Your task to perform on an android device: Open network settings Image 0: 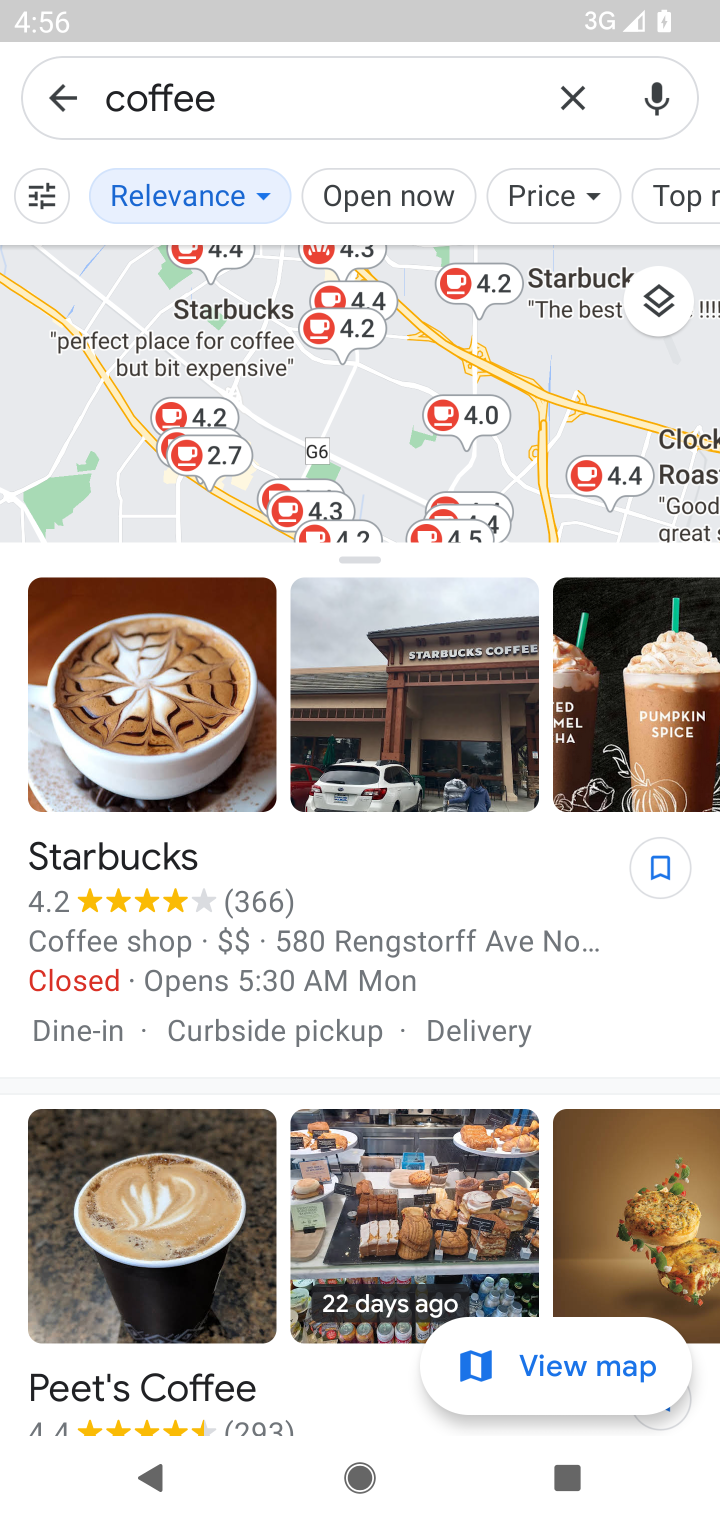
Step 0: press home button
Your task to perform on an android device: Open network settings Image 1: 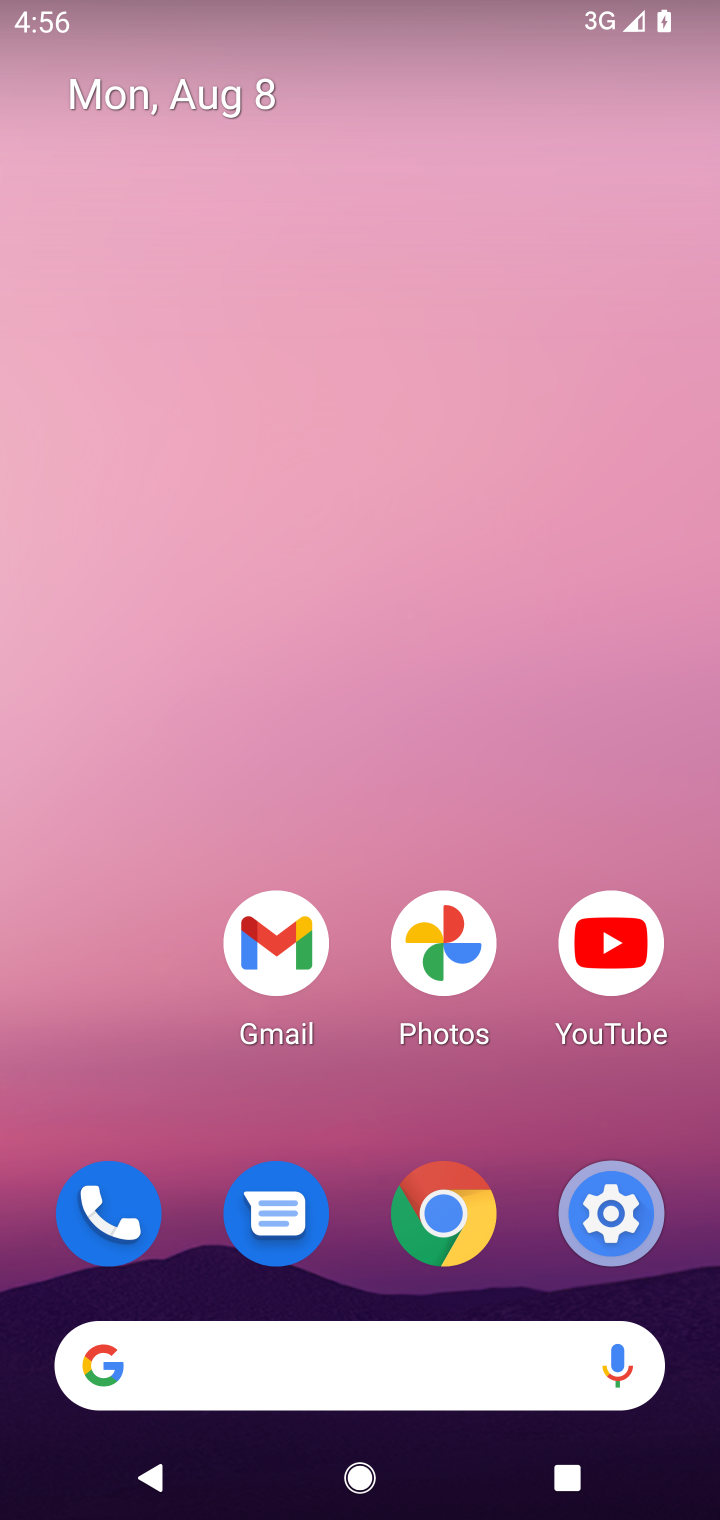
Step 1: click (639, 1197)
Your task to perform on an android device: Open network settings Image 2: 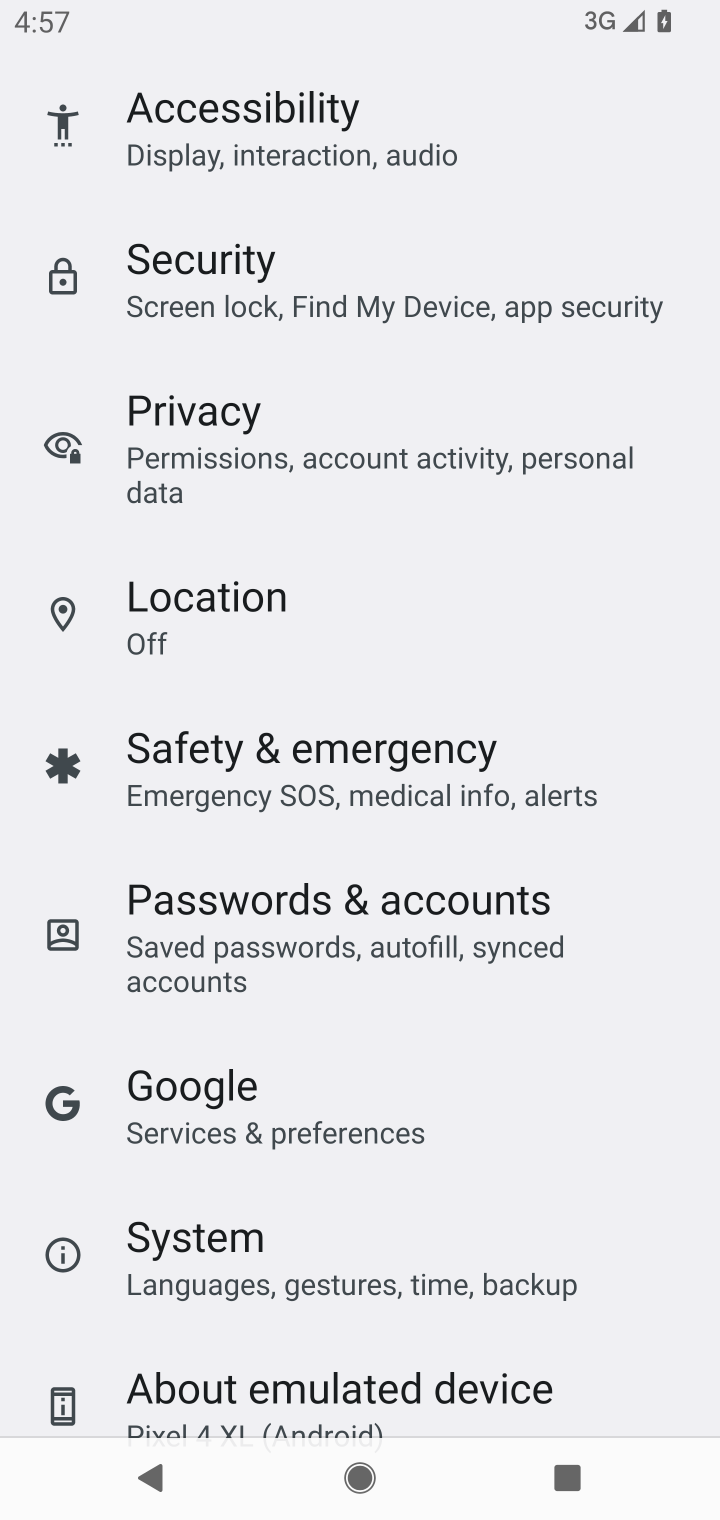
Step 2: drag from (296, 637) to (283, 1118)
Your task to perform on an android device: Open network settings Image 3: 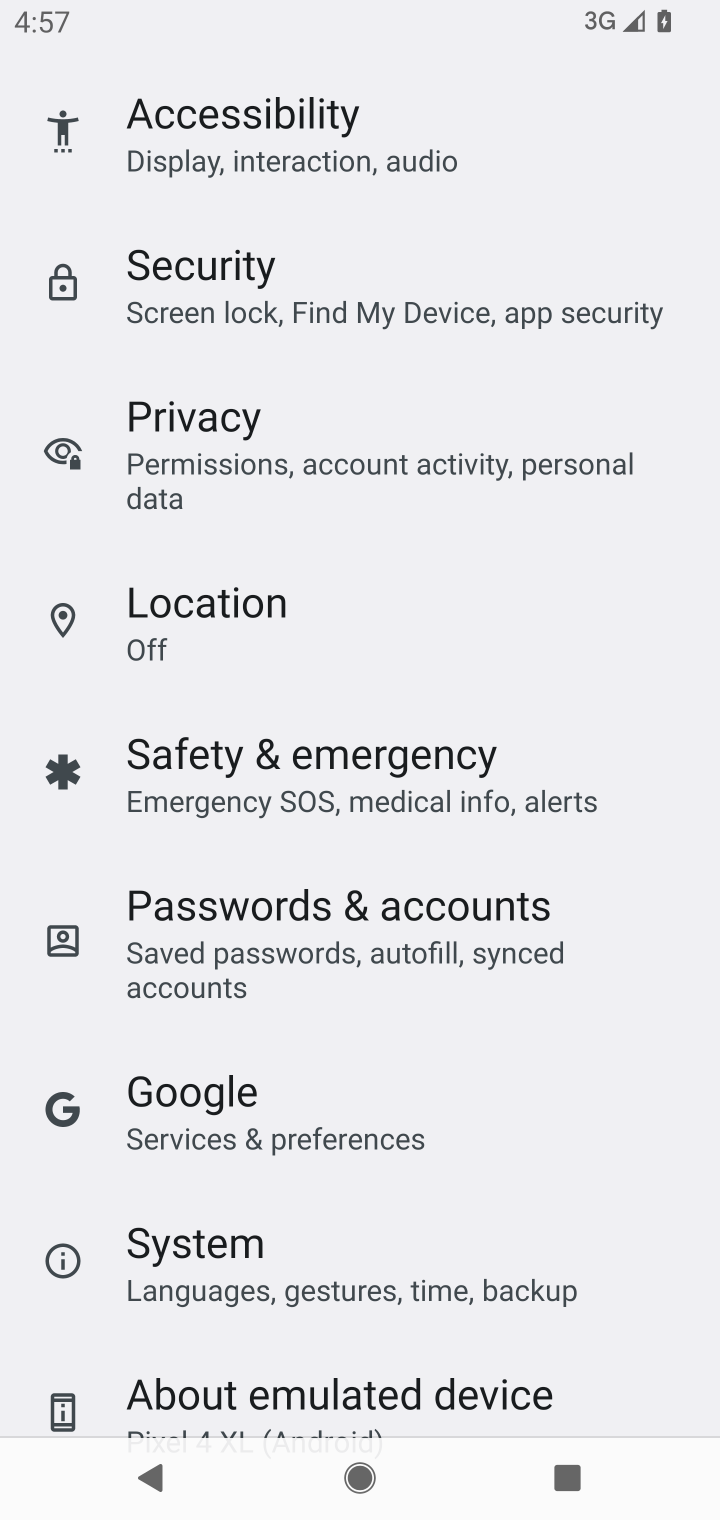
Step 3: drag from (505, 389) to (539, 1259)
Your task to perform on an android device: Open network settings Image 4: 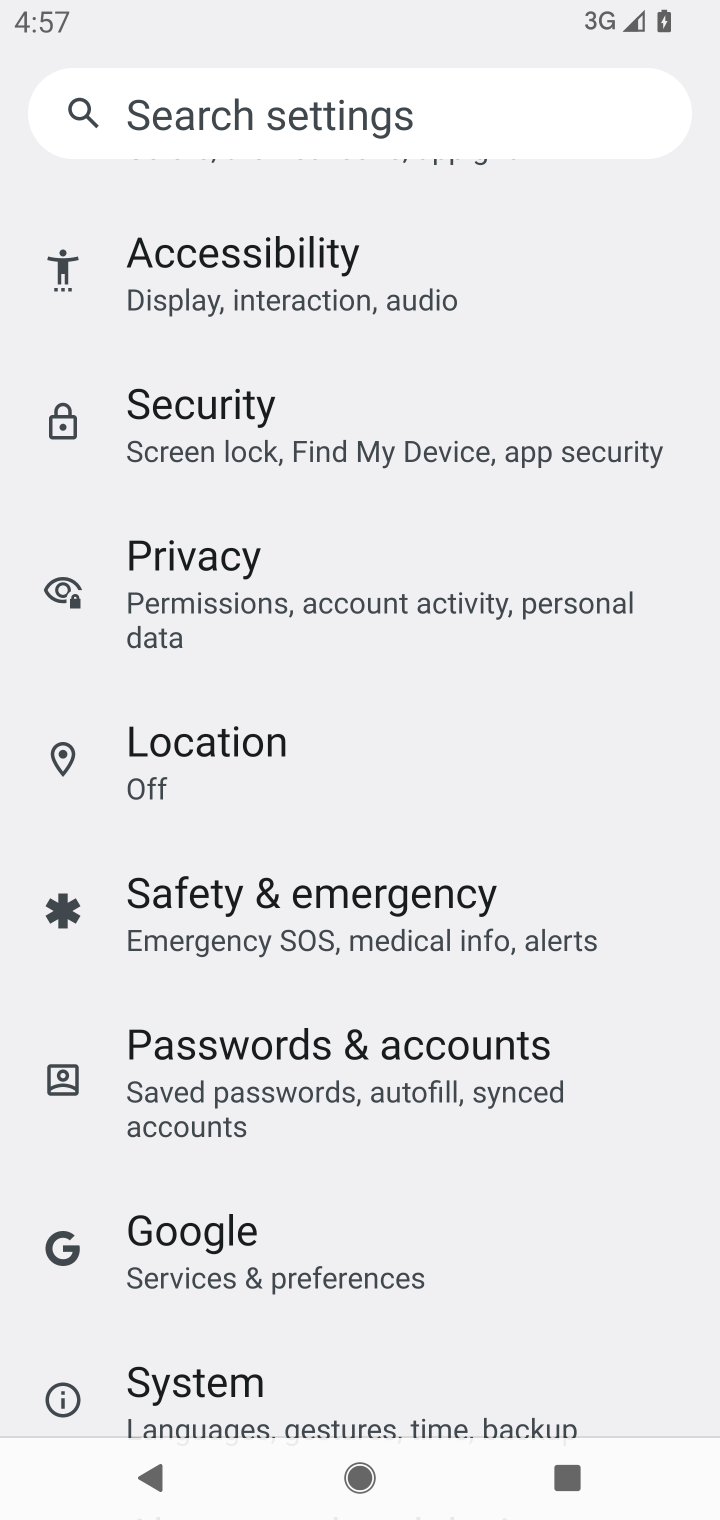
Step 4: drag from (462, 348) to (462, 1161)
Your task to perform on an android device: Open network settings Image 5: 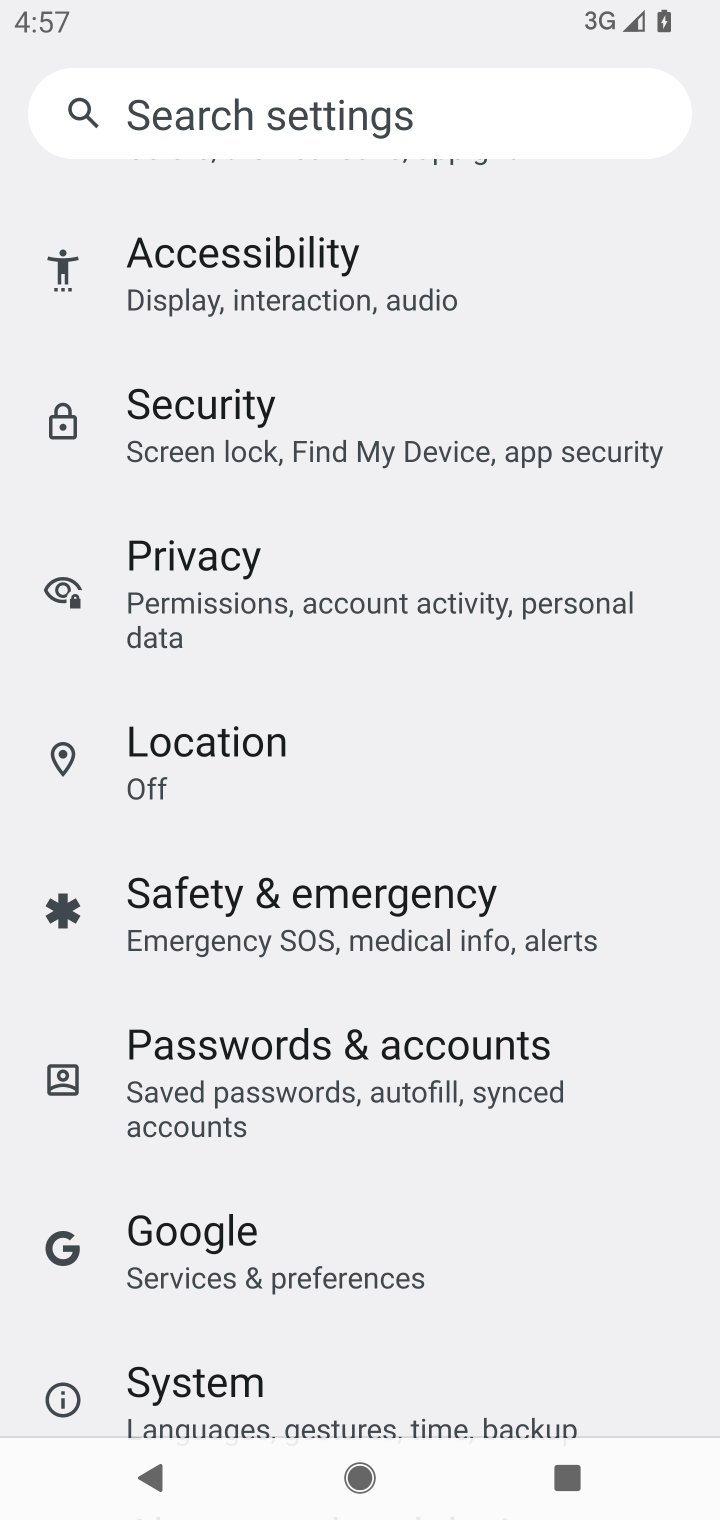
Step 5: drag from (485, 365) to (500, 1373)
Your task to perform on an android device: Open network settings Image 6: 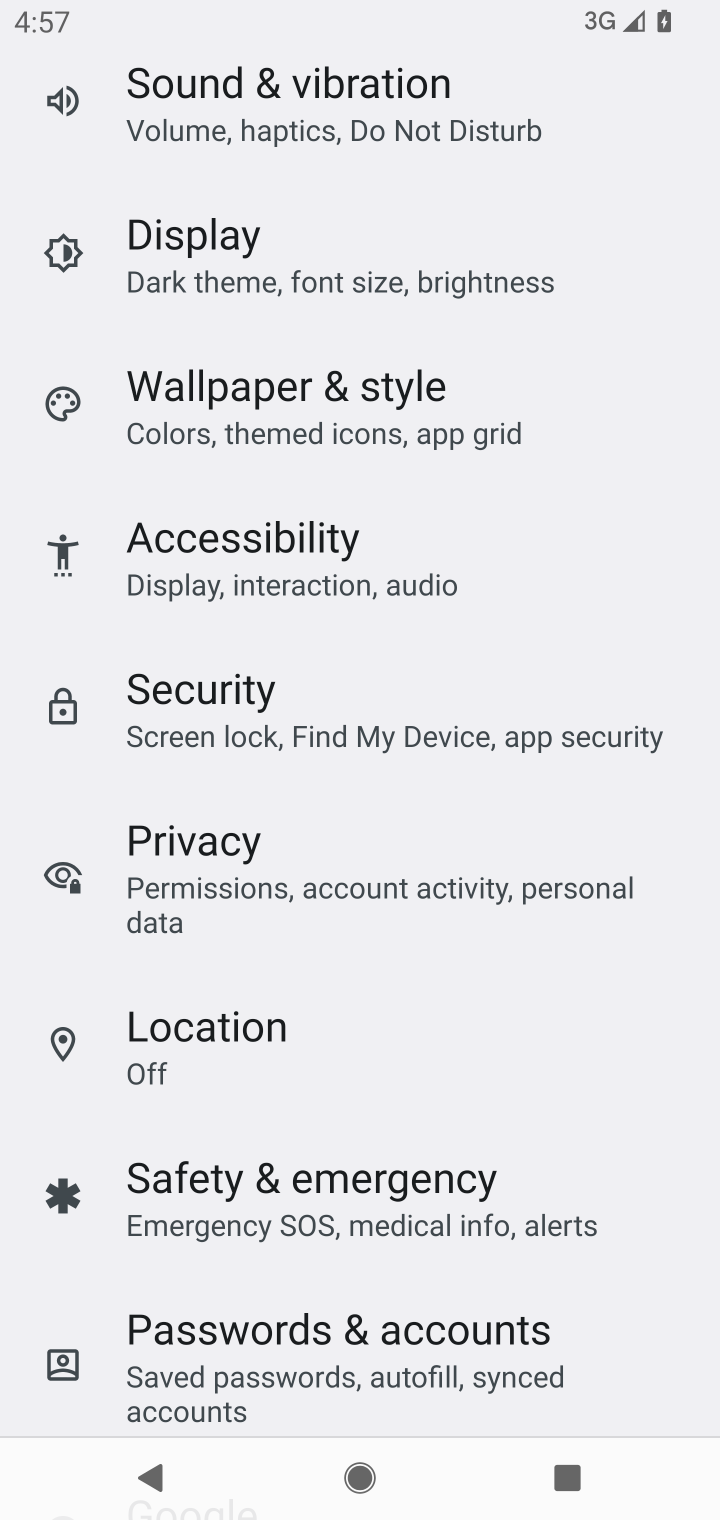
Step 6: drag from (410, 360) to (518, 1187)
Your task to perform on an android device: Open network settings Image 7: 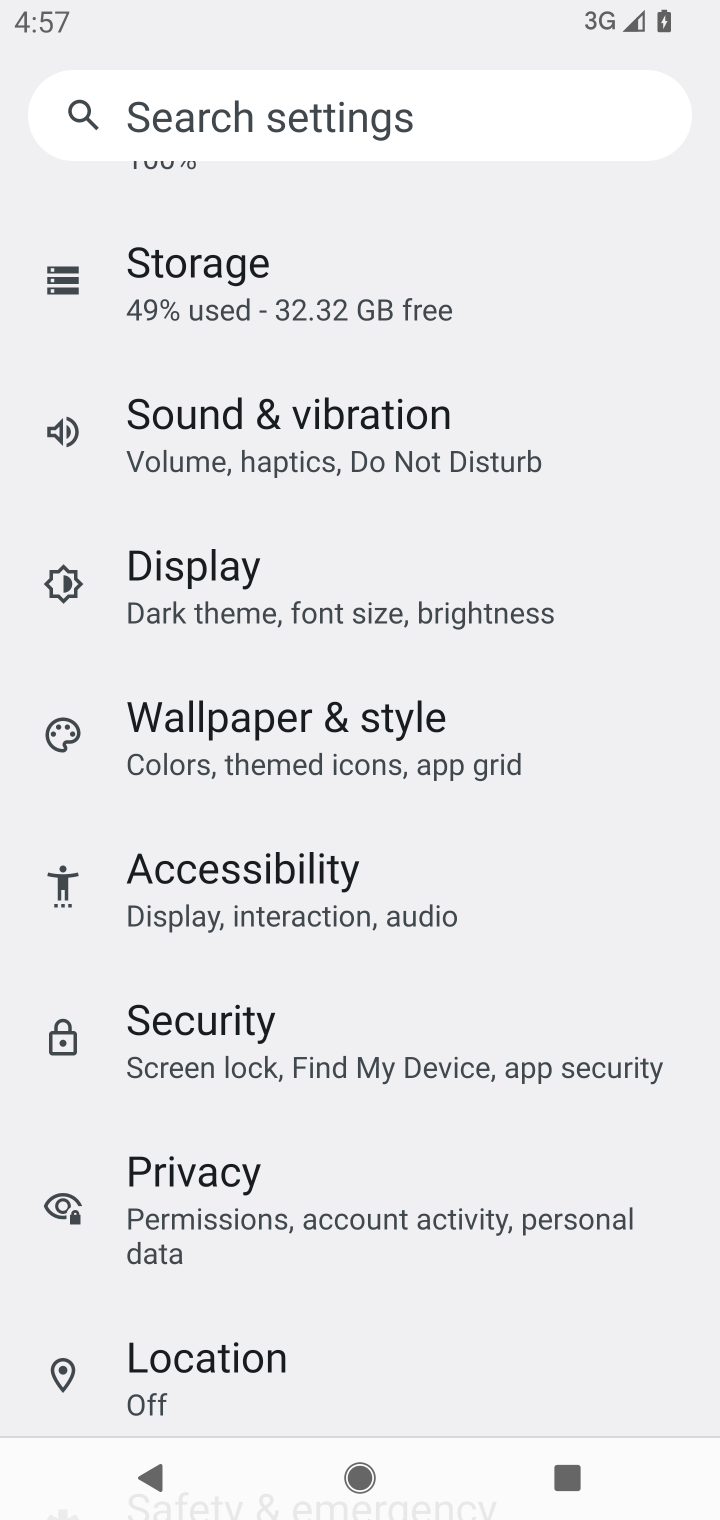
Step 7: drag from (419, 429) to (427, 1152)
Your task to perform on an android device: Open network settings Image 8: 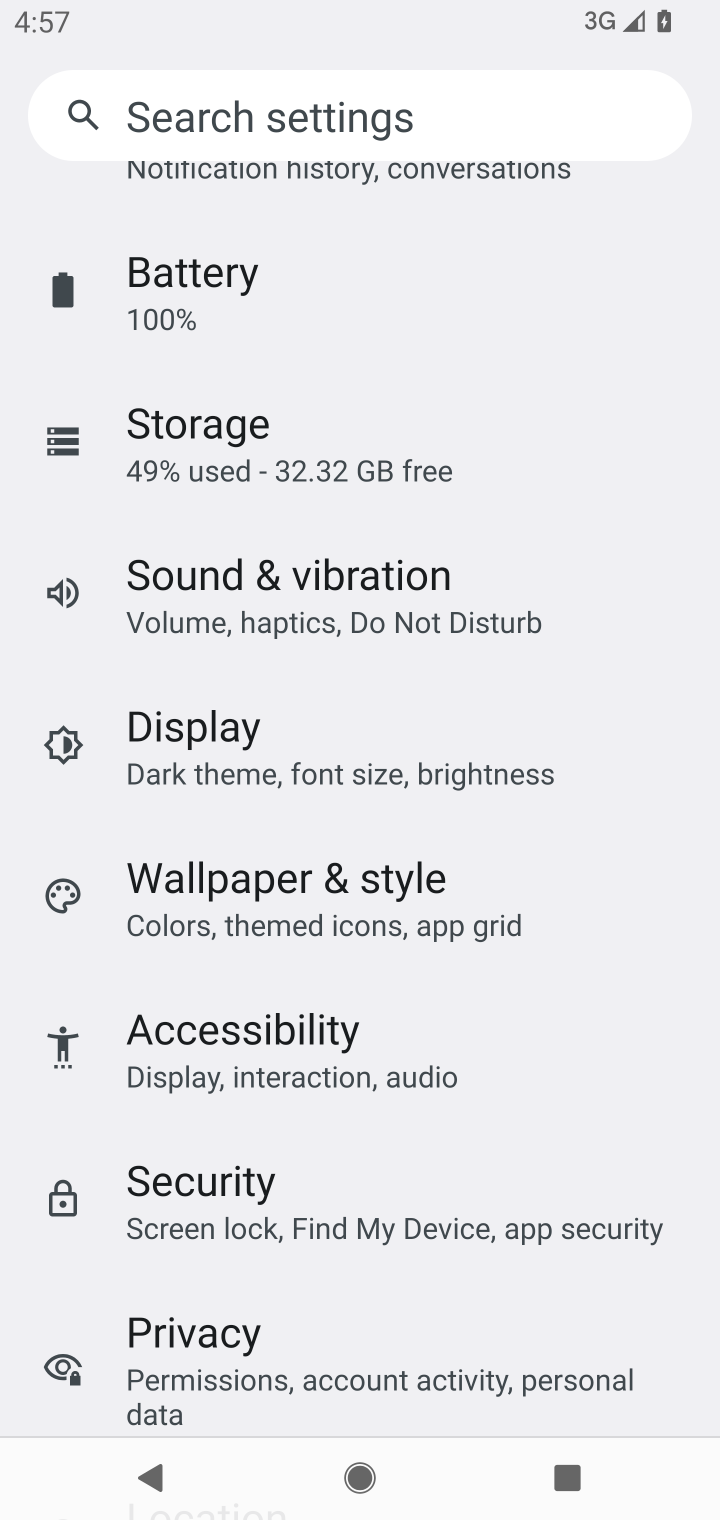
Step 8: drag from (478, 333) to (523, 1227)
Your task to perform on an android device: Open network settings Image 9: 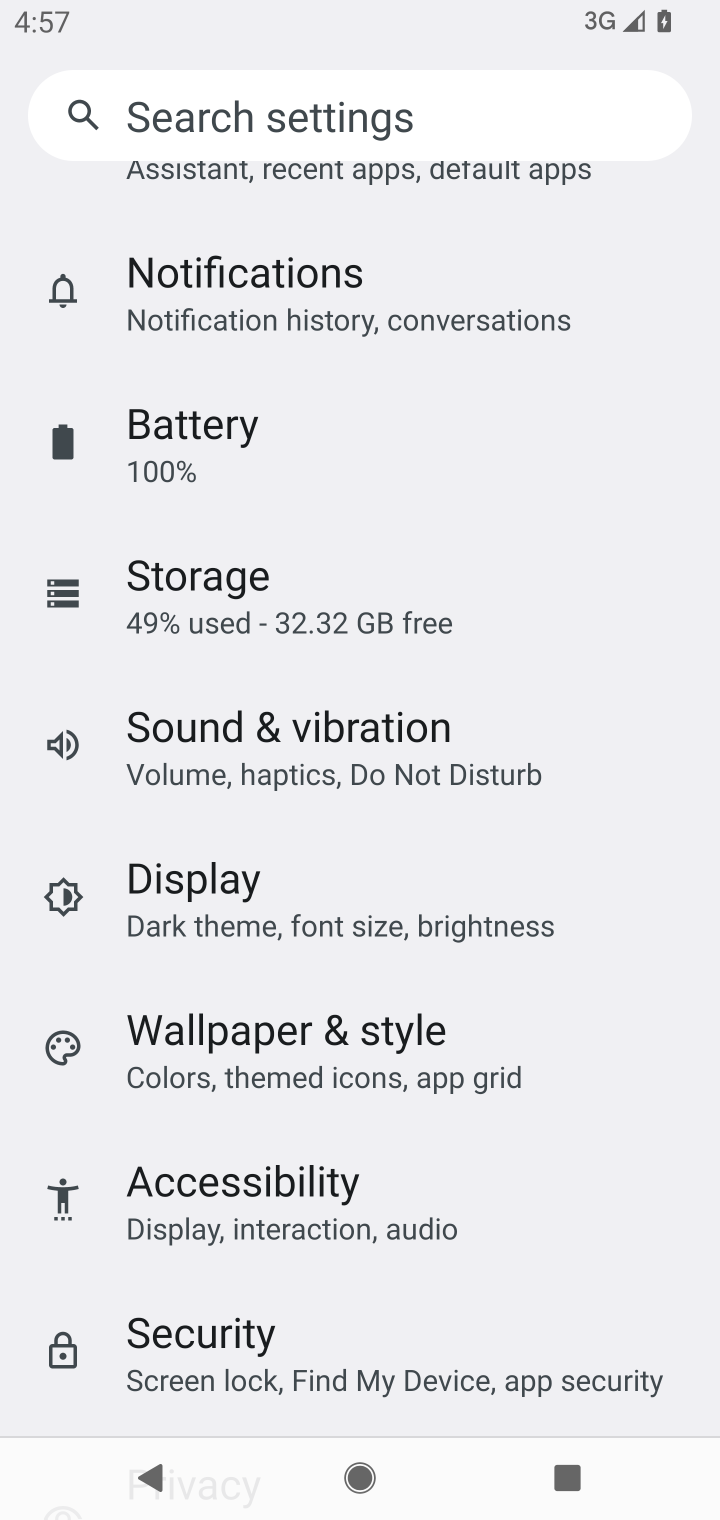
Step 9: drag from (473, 299) to (366, 1283)
Your task to perform on an android device: Open network settings Image 10: 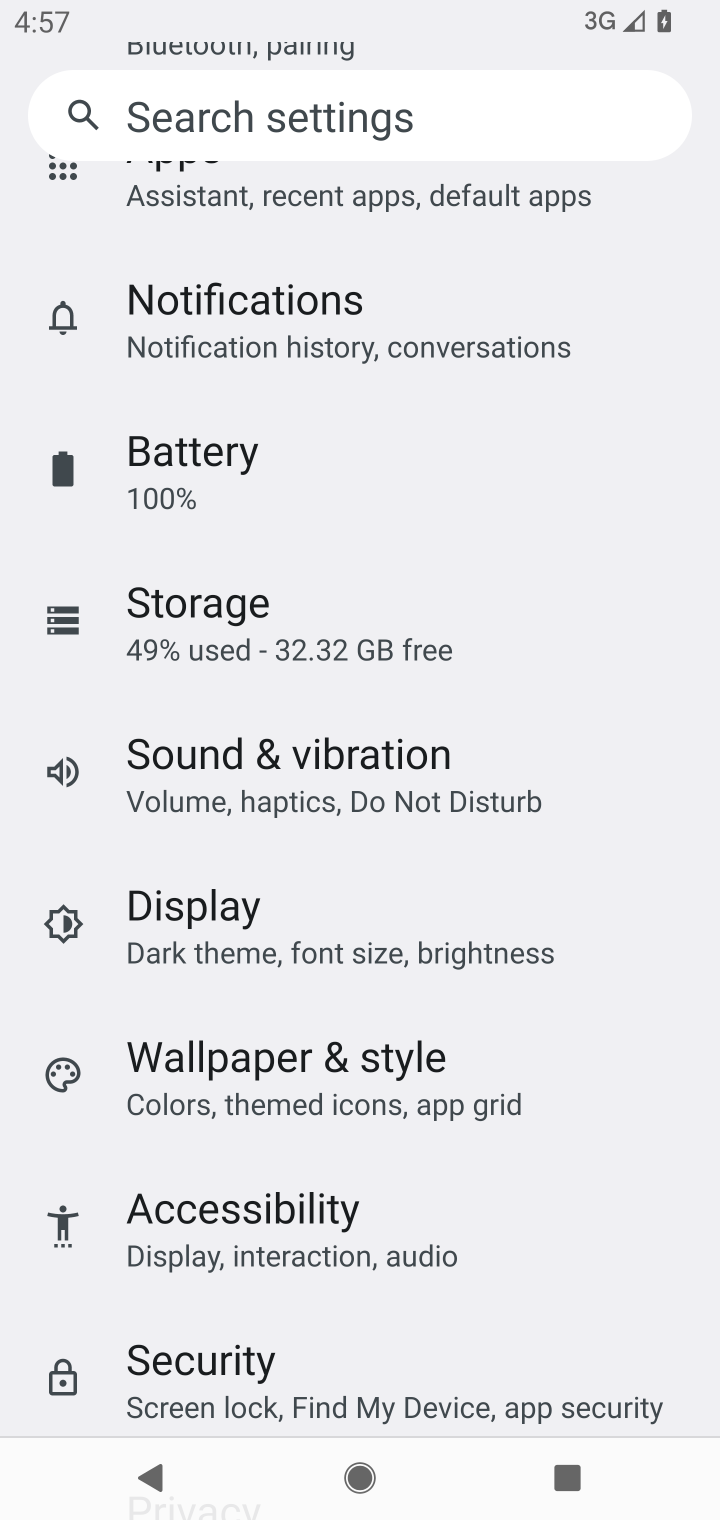
Step 10: drag from (450, 335) to (520, 1334)
Your task to perform on an android device: Open network settings Image 11: 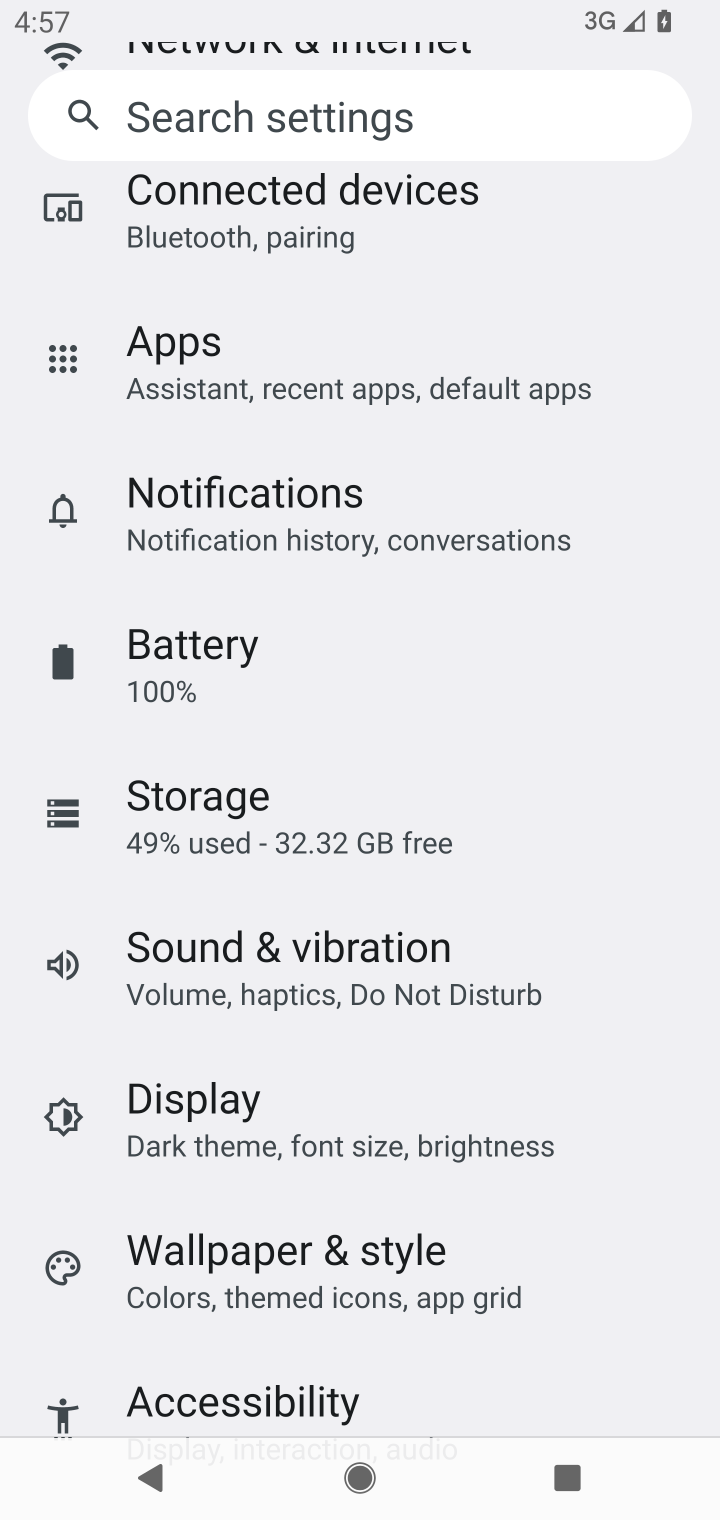
Step 11: drag from (527, 397) to (647, 1406)
Your task to perform on an android device: Open network settings Image 12: 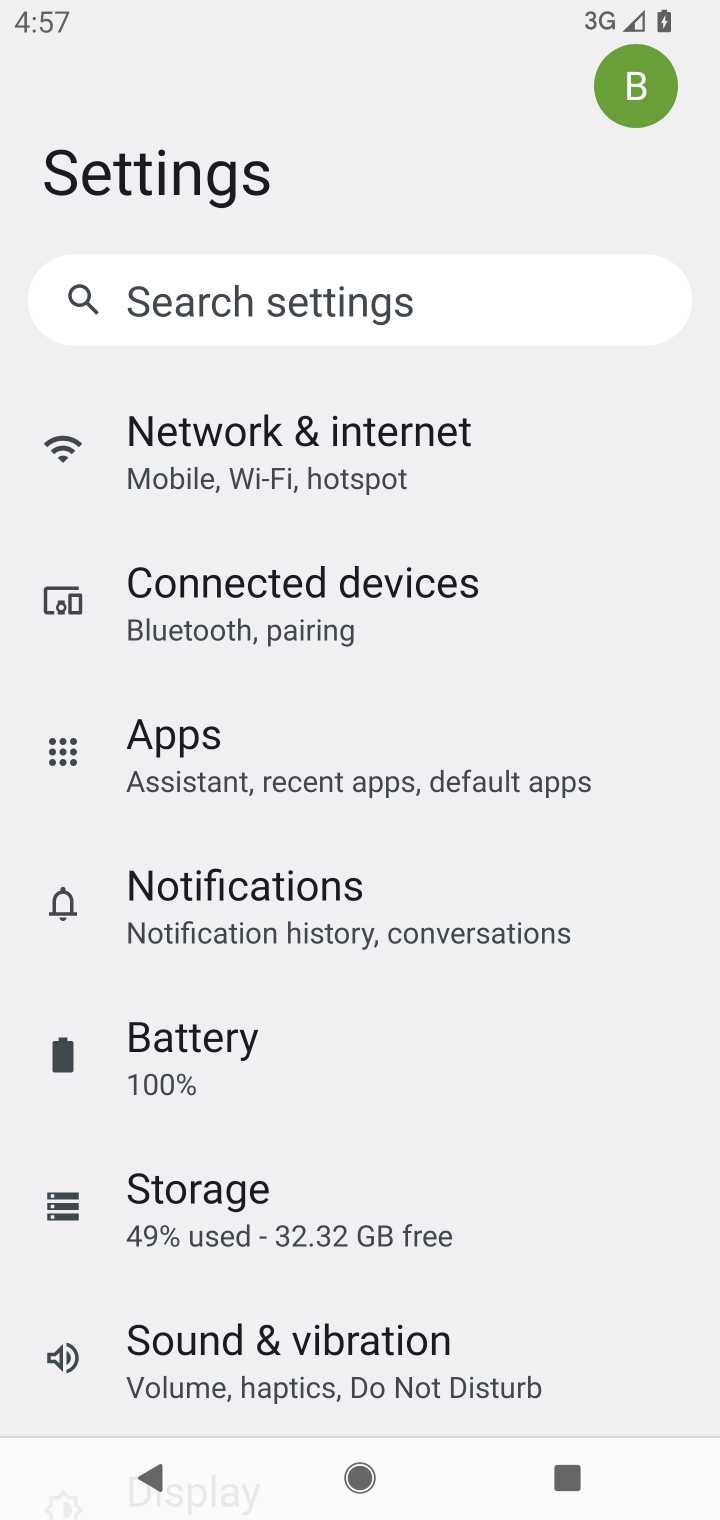
Step 12: click (543, 437)
Your task to perform on an android device: Open network settings Image 13: 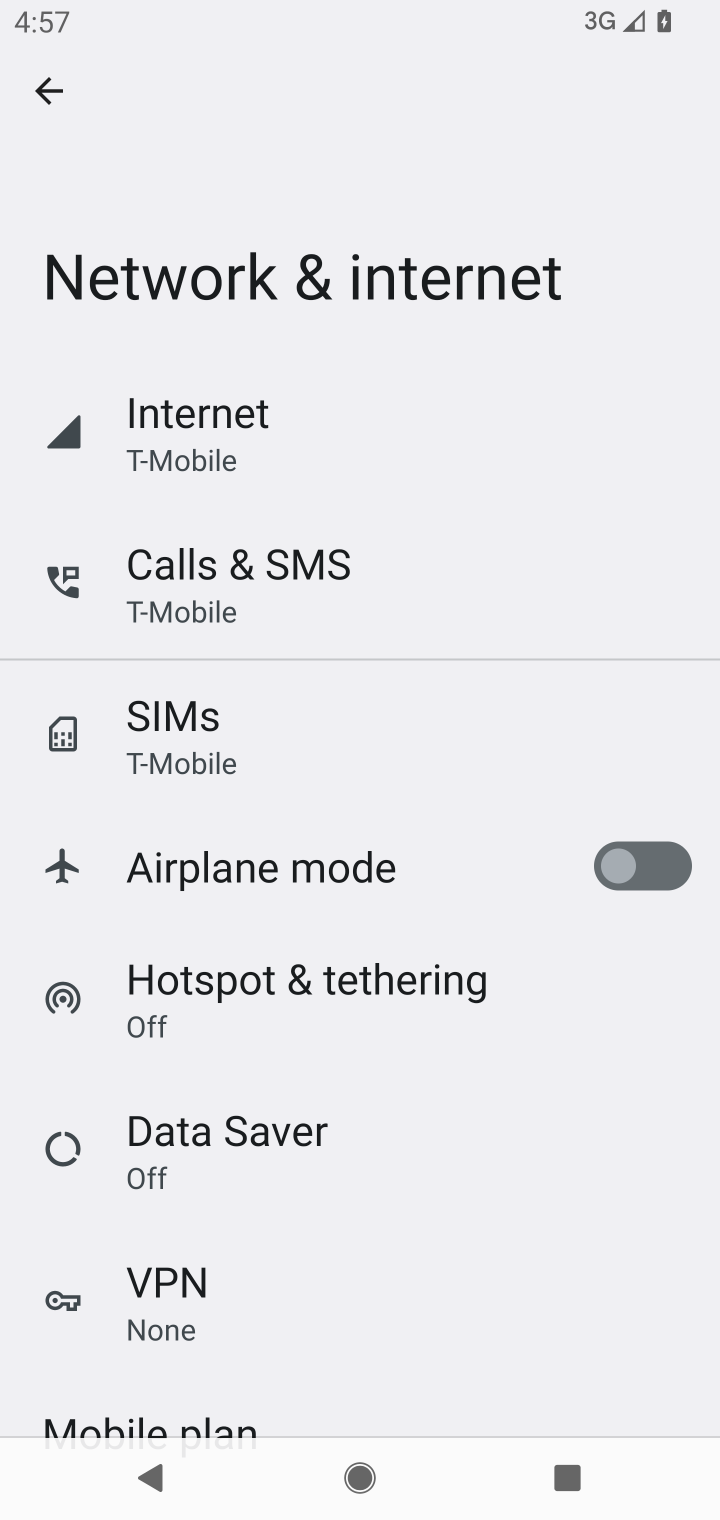
Step 13: task complete